Your task to perform on an android device: read, delete, or share a saved page in the chrome app Image 0: 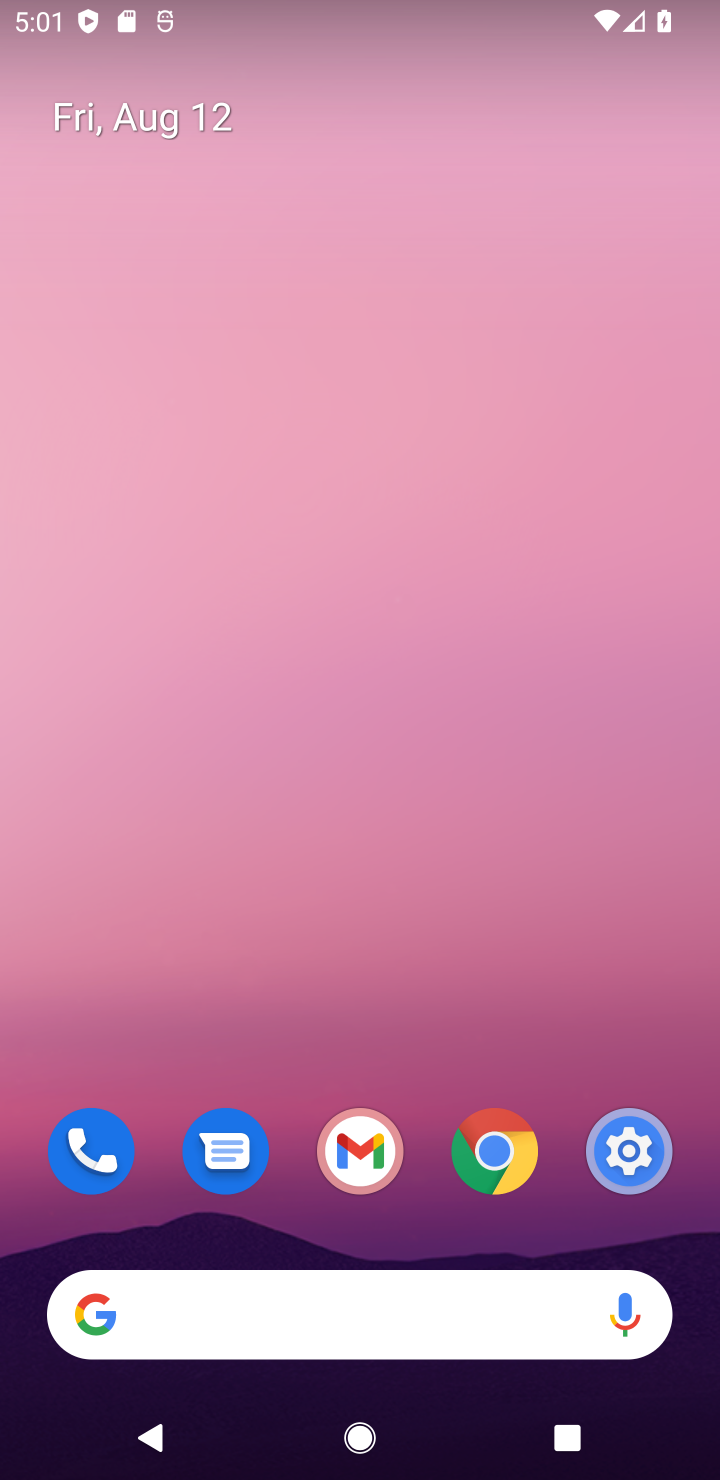
Step 0: drag from (425, 1124) to (409, 40)
Your task to perform on an android device: read, delete, or share a saved page in the chrome app Image 1: 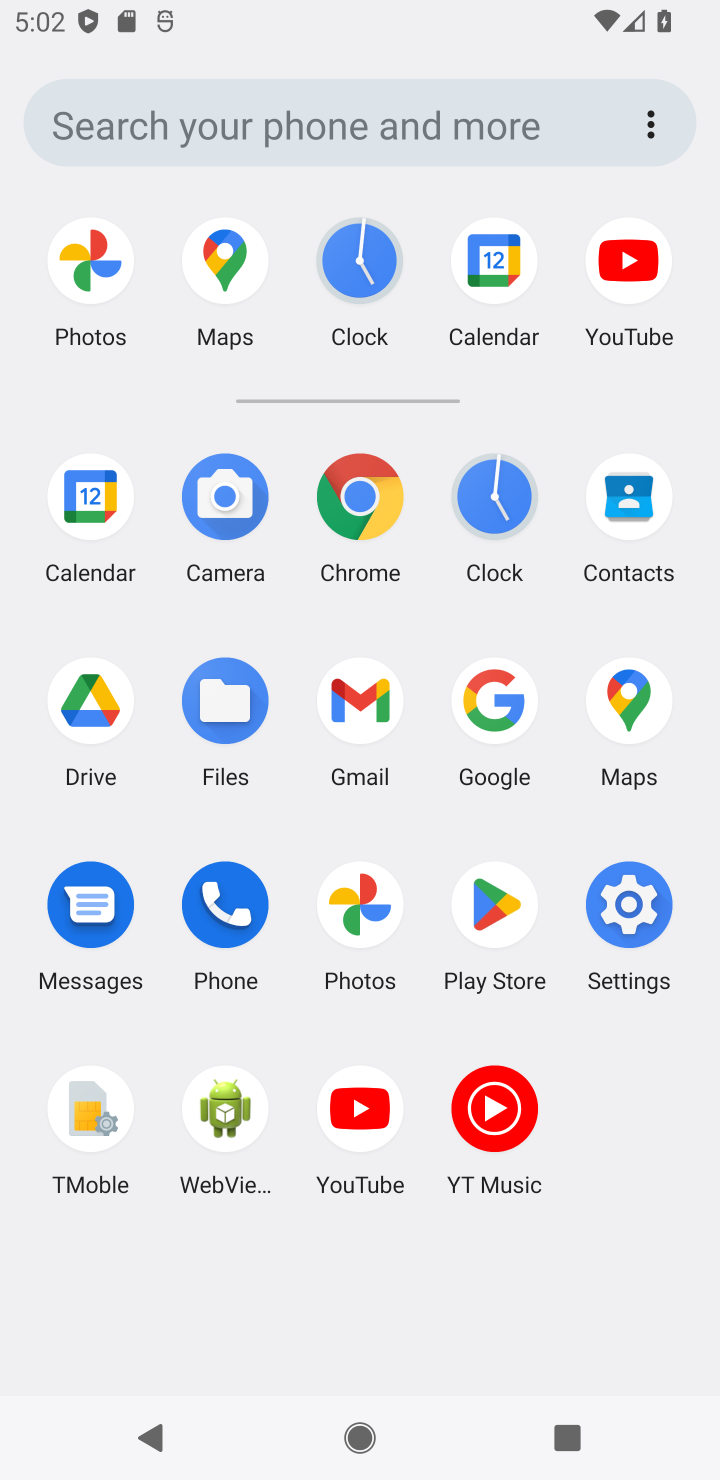
Step 1: click (358, 495)
Your task to perform on an android device: read, delete, or share a saved page in the chrome app Image 2: 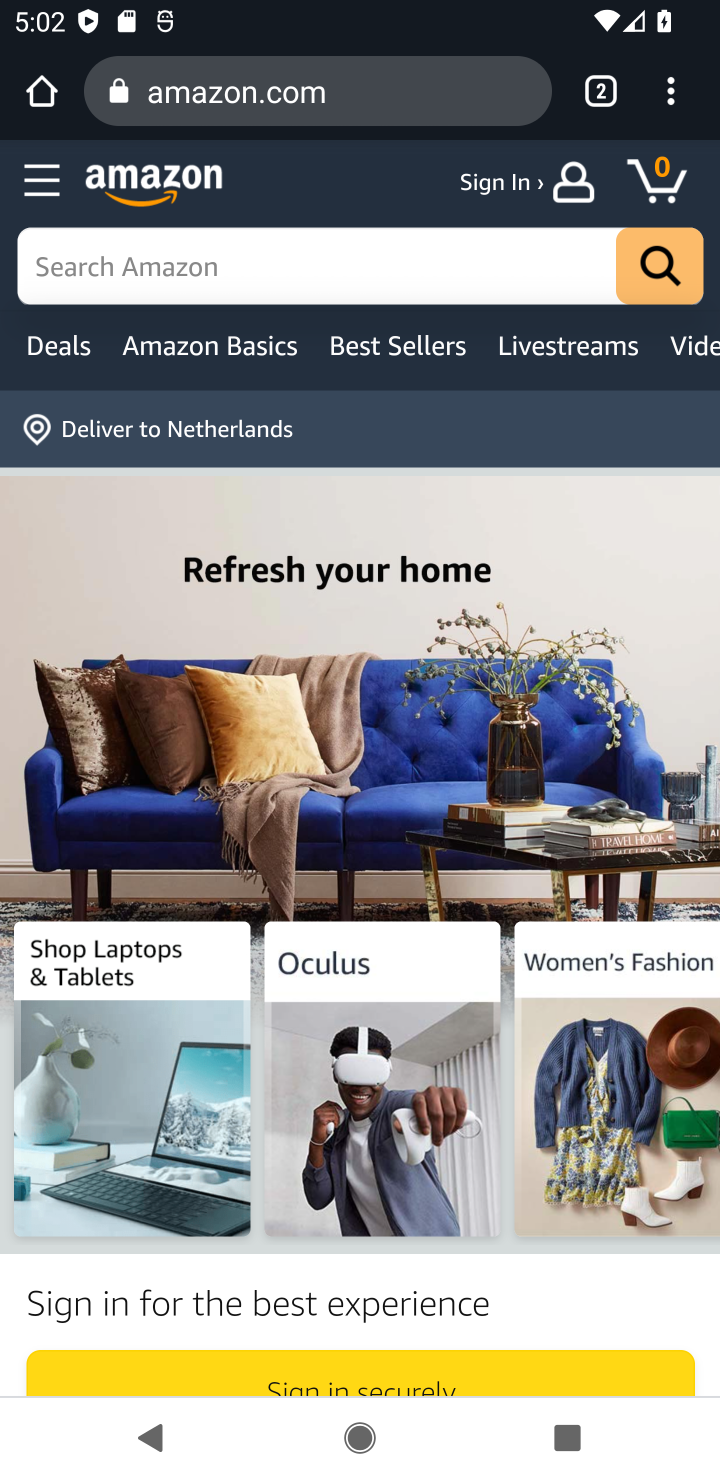
Step 2: task complete